Your task to perform on an android device: Open the phone app and click the voicemail tab. Image 0: 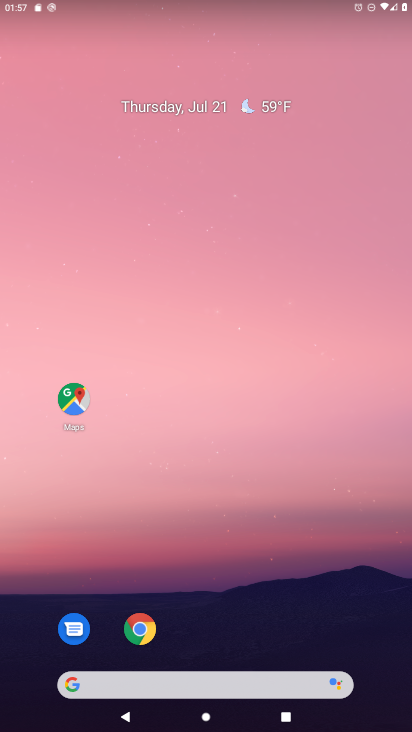
Step 0: drag from (393, 651) to (299, 75)
Your task to perform on an android device: Open the phone app and click the voicemail tab. Image 1: 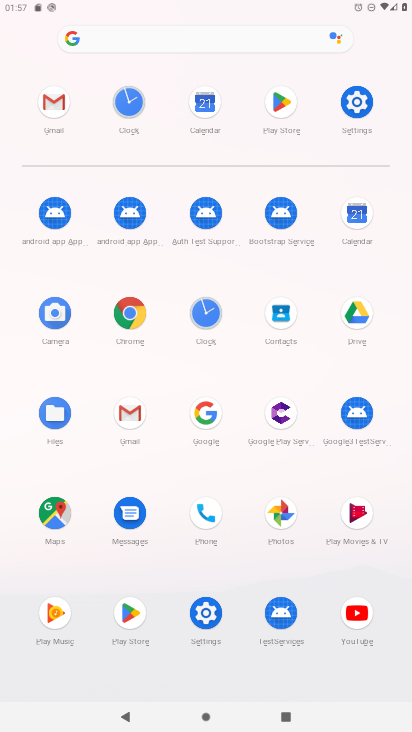
Step 1: click (201, 515)
Your task to perform on an android device: Open the phone app and click the voicemail tab. Image 2: 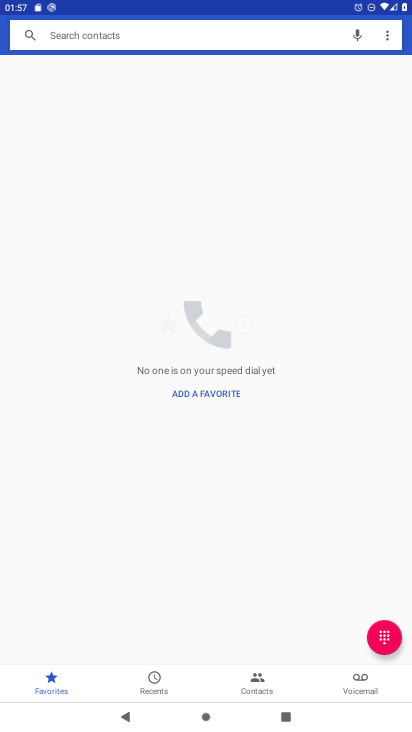
Step 2: click (360, 681)
Your task to perform on an android device: Open the phone app and click the voicemail tab. Image 3: 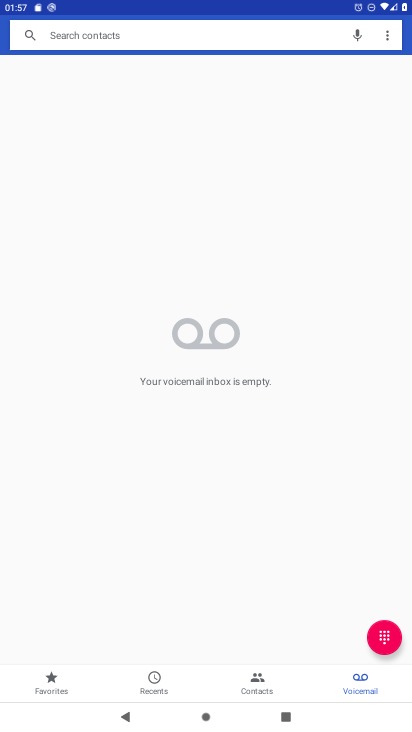
Step 3: task complete